Your task to perform on an android device: Open calendar and show me the fourth week of next month Image 0: 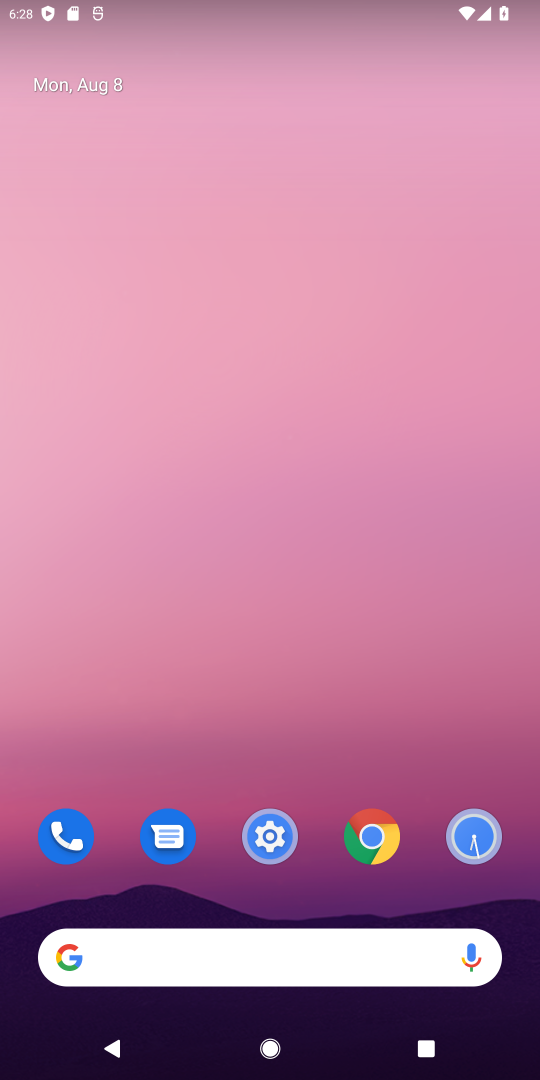
Step 0: drag from (346, 736) to (355, 1)
Your task to perform on an android device: Open calendar and show me the fourth week of next month Image 1: 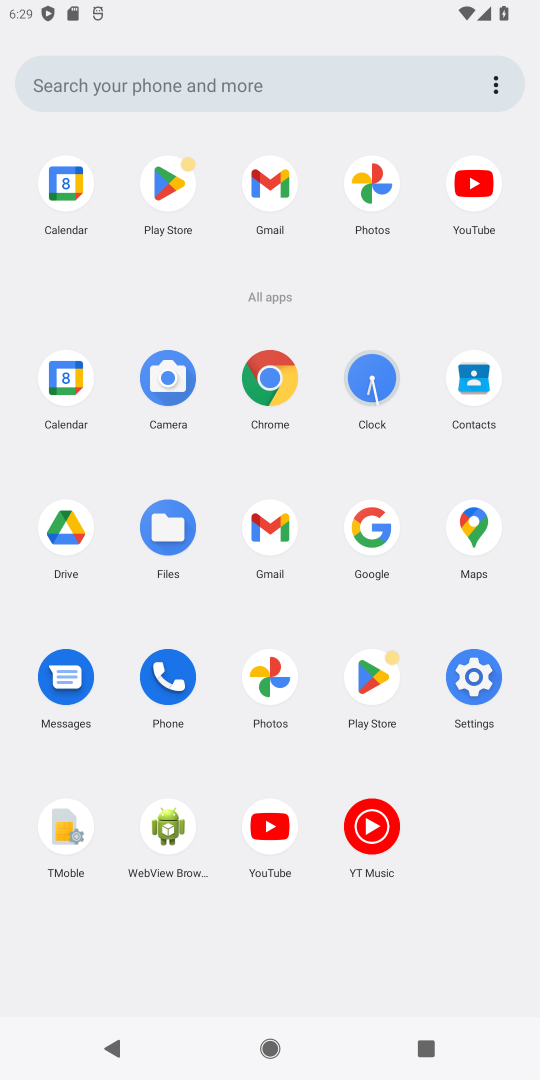
Step 1: click (69, 410)
Your task to perform on an android device: Open calendar and show me the fourth week of next month Image 2: 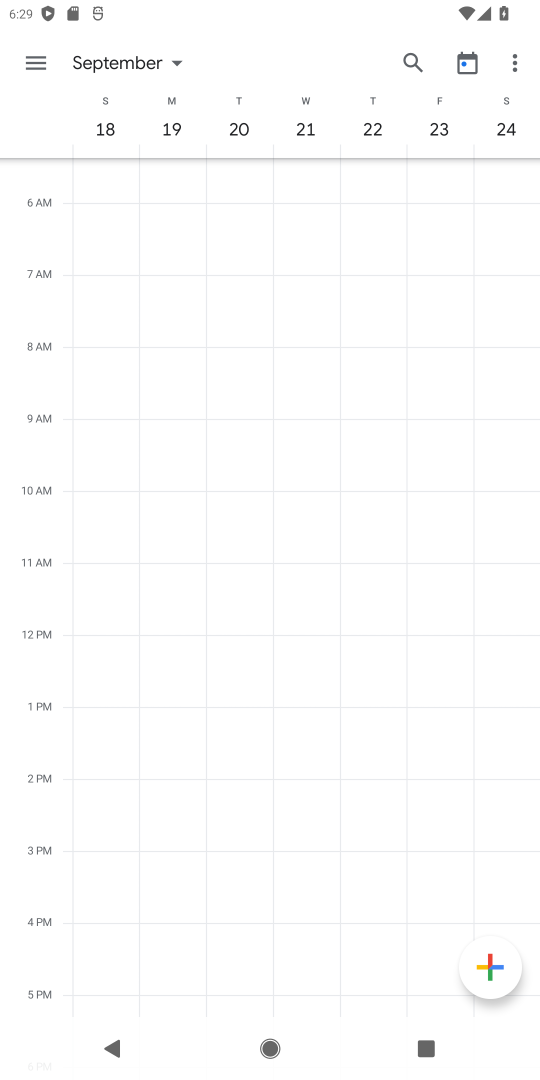
Step 2: task complete